Your task to perform on an android device: Search for seafood restaurants on Google Maps Image 0: 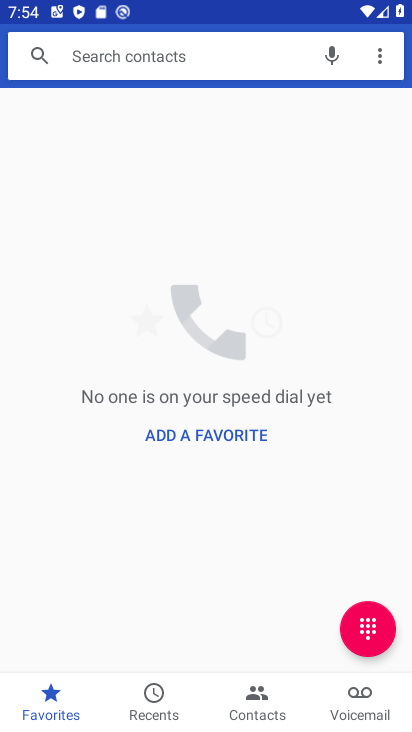
Step 0: press home button
Your task to perform on an android device: Search for seafood restaurants on Google Maps Image 1: 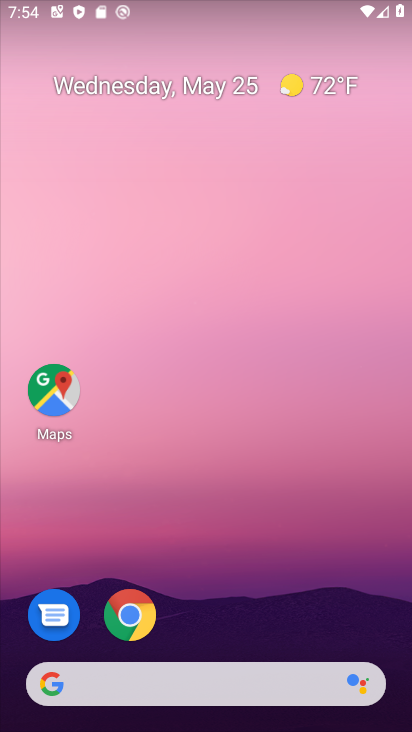
Step 1: click (52, 383)
Your task to perform on an android device: Search for seafood restaurants on Google Maps Image 2: 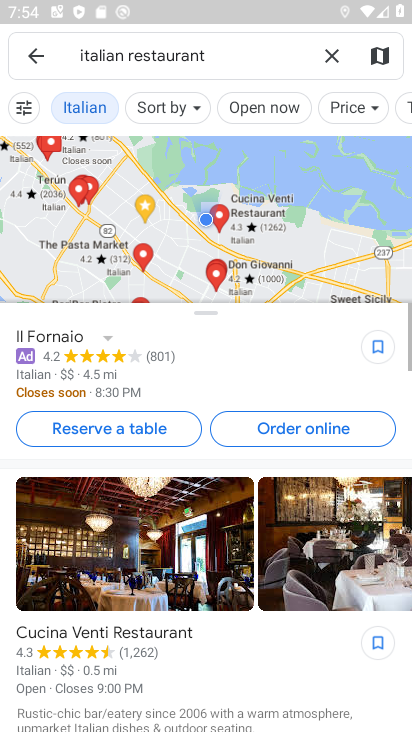
Step 2: click (328, 56)
Your task to perform on an android device: Search for seafood restaurants on Google Maps Image 3: 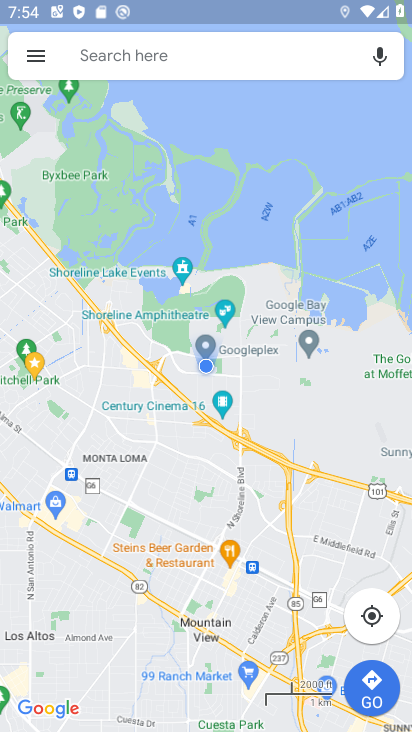
Step 3: click (196, 48)
Your task to perform on an android device: Search for seafood restaurants on Google Maps Image 4: 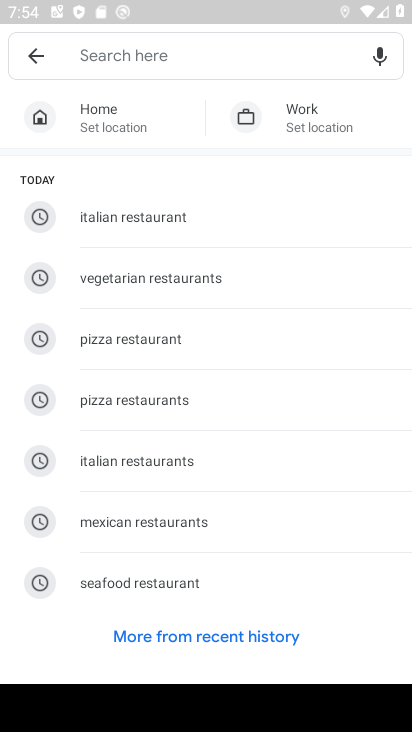
Step 4: click (159, 581)
Your task to perform on an android device: Search for seafood restaurants on Google Maps Image 5: 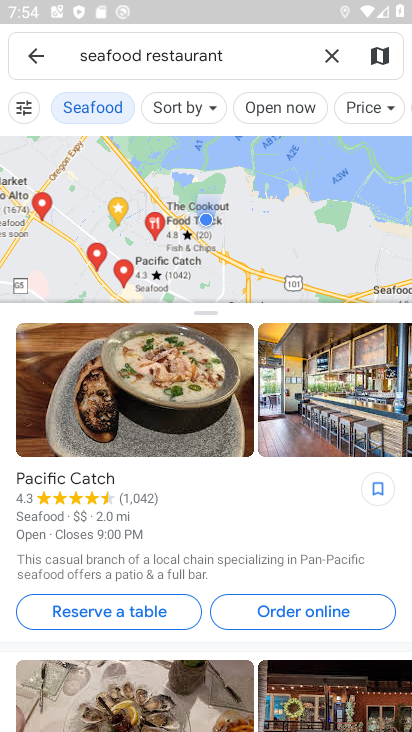
Step 5: task complete